Your task to perform on an android device: Play the last video I watched on Youtube Image 0: 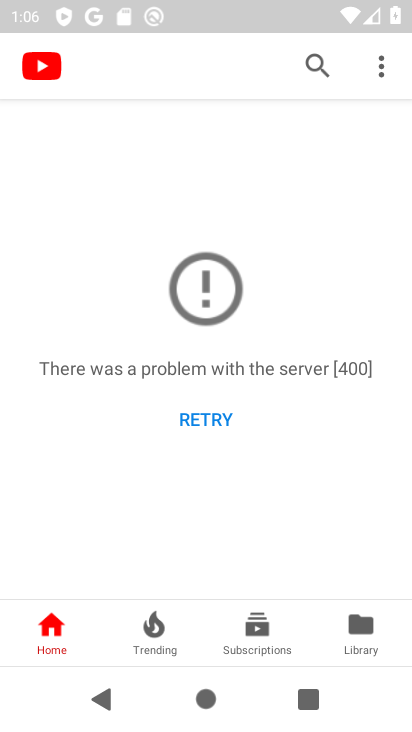
Step 0: press home button
Your task to perform on an android device: Play the last video I watched on Youtube Image 1: 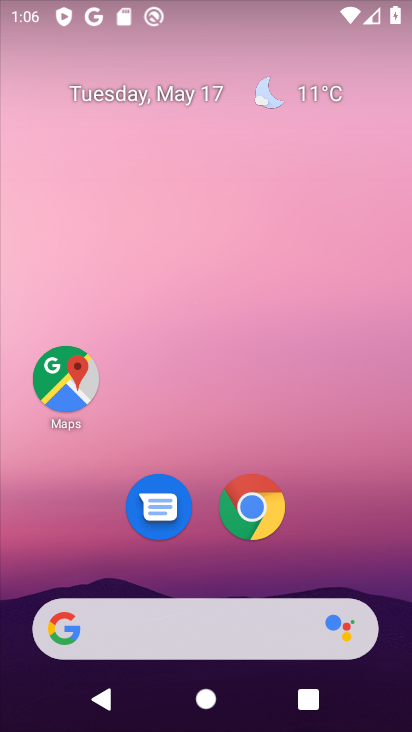
Step 1: drag from (212, 551) to (229, 68)
Your task to perform on an android device: Play the last video I watched on Youtube Image 2: 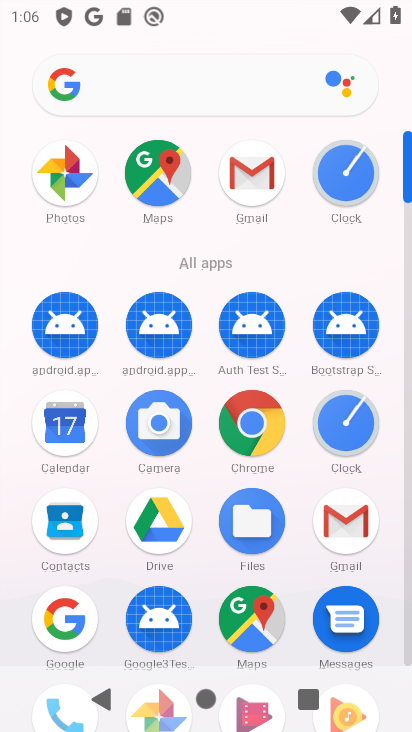
Step 2: drag from (205, 557) to (200, 105)
Your task to perform on an android device: Play the last video I watched on Youtube Image 3: 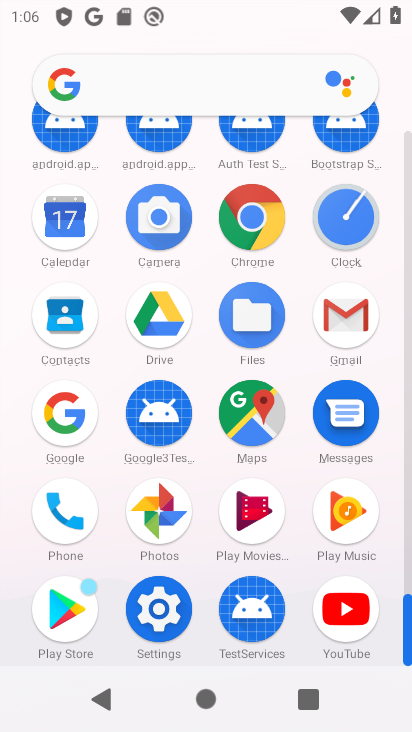
Step 3: click (347, 613)
Your task to perform on an android device: Play the last video I watched on Youtube Image 4: 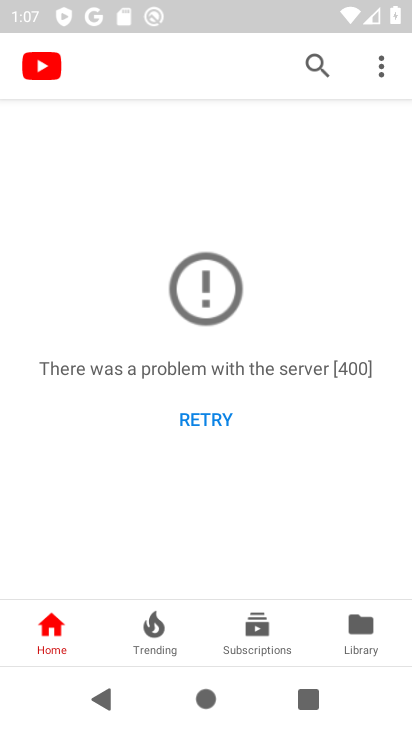
Step 4: task complete